Your task to perform on an android device: Open the map Image 0: 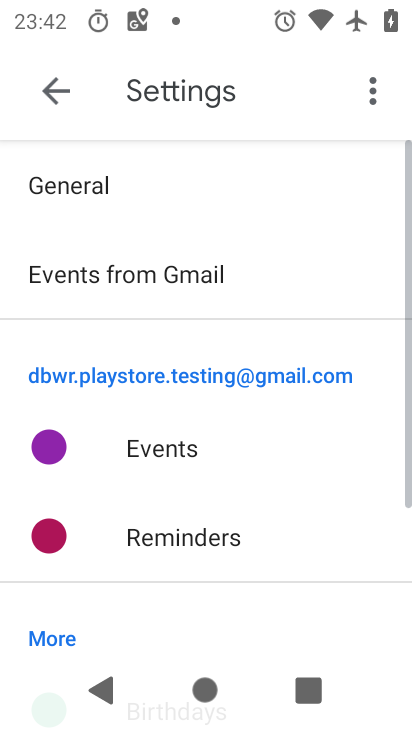
Step 0: press home button
Your task to perform on an android device: Open the map Image 1: 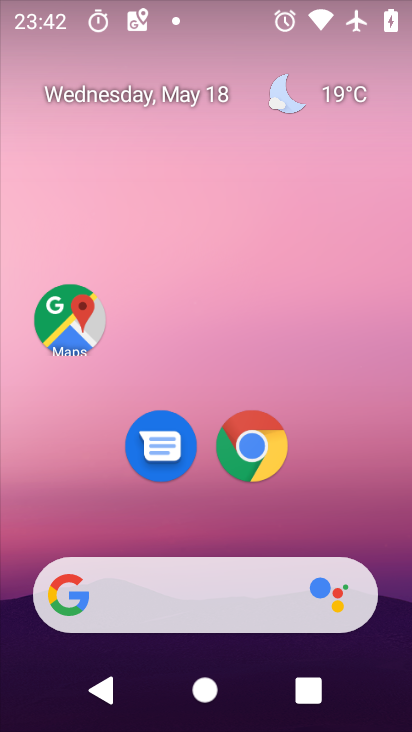
Step 1: click (71, 326)
Your task to perform on an android device: Open the map Image 2: 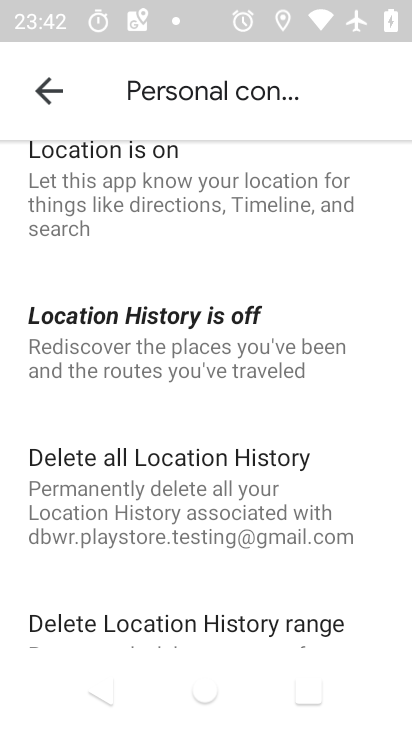
Step 2: click (54, 91)
Your task to perform on an android device: Open the map Image 3: 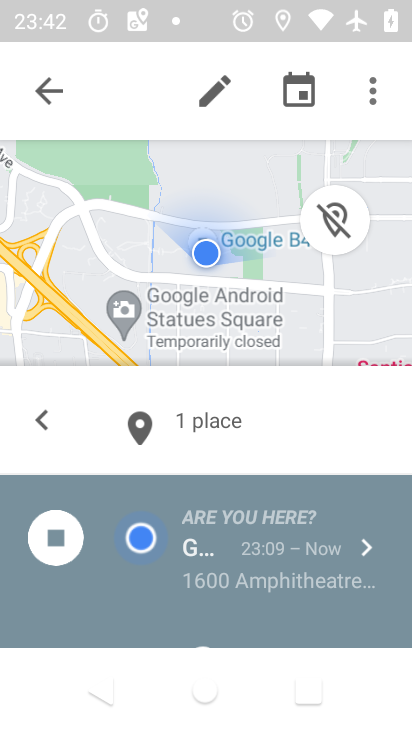
Step 3: click (54, 90)
Your task to perform on an android device: Open the map Image 4: 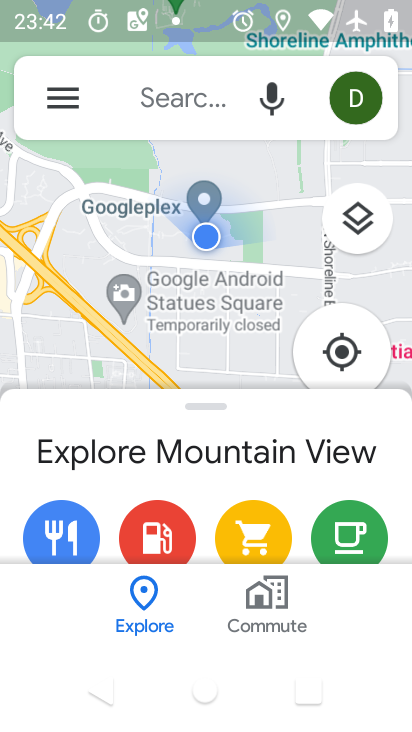
Step 4: task complete